Your task to perform on an android device: open device folders in google photos Image 0: 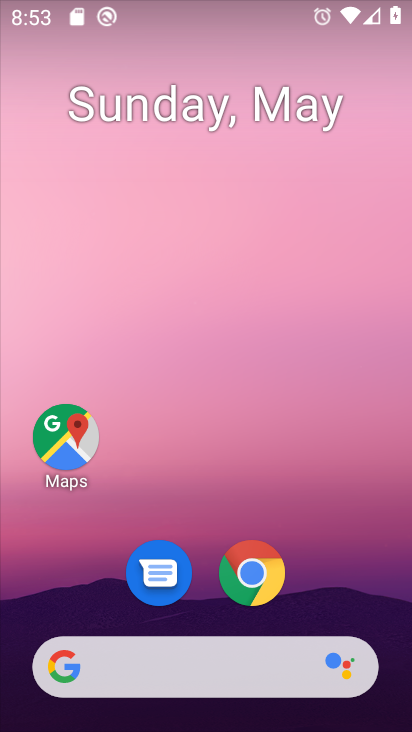
Step 0: drag from (256, 506) to (290, 7)
Your task to perform on an android device: open device folders in google photos Image 1: 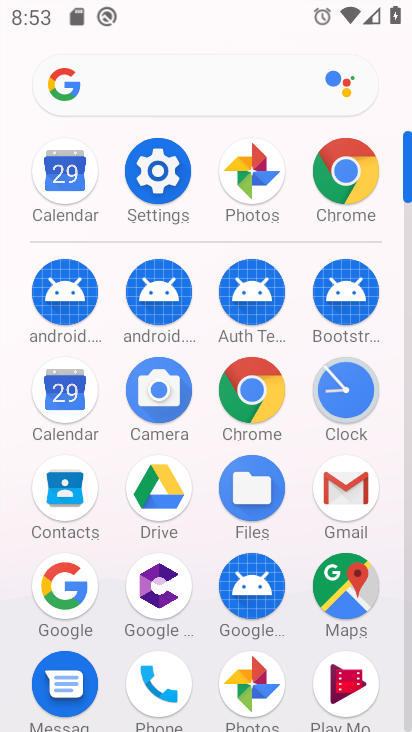
Step 1: click (253, 164)
Your task to perform on an android device: open device folders in google photos Image 2: 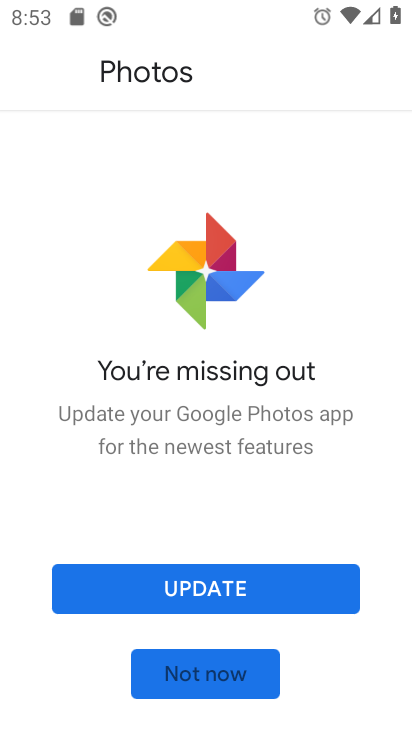
Step 2: click (205, 673)
Your task to perform on an android device: open device folders in google photos Image 3: 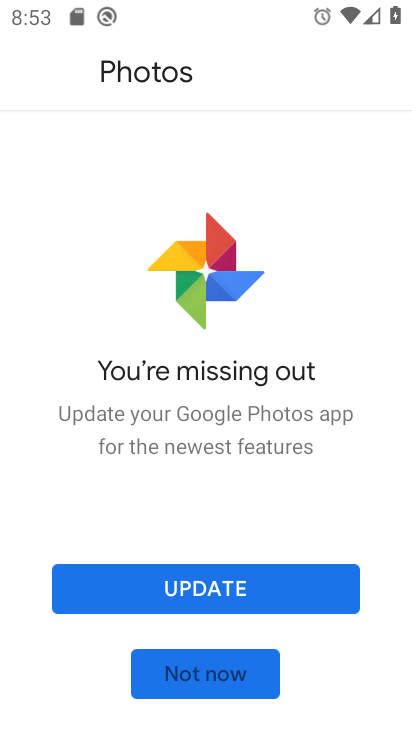
Step 3: click (205, 673)
Your task to perform on an android device: open device folders in google photos Image 4: 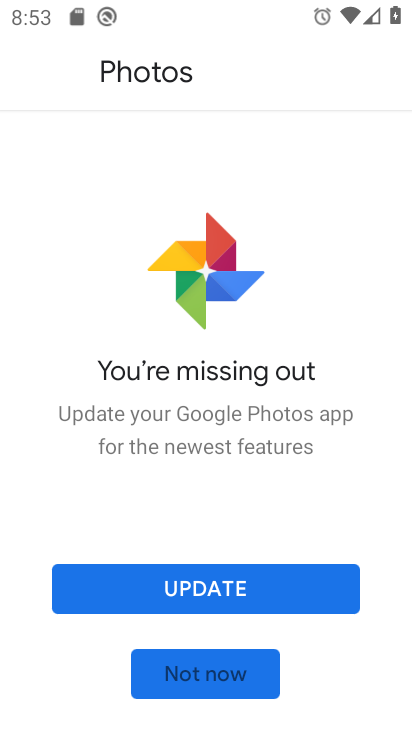
Step 4: click (268, 590)
Your task to perform on an android device: open device folders in google photos Image 5: 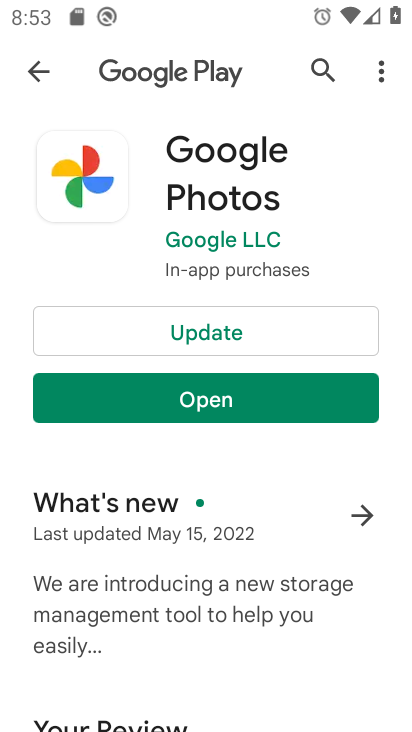
Step 5: click (292, 391)
Your task to perform on an android device: open device folders in google photos Image 6: 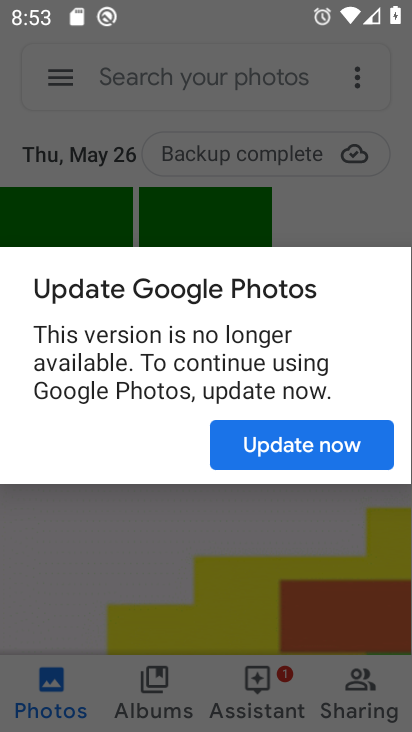
Step 6: click (274, 441)
Your task to perform on an android device: open device folders in google photos Image 7: 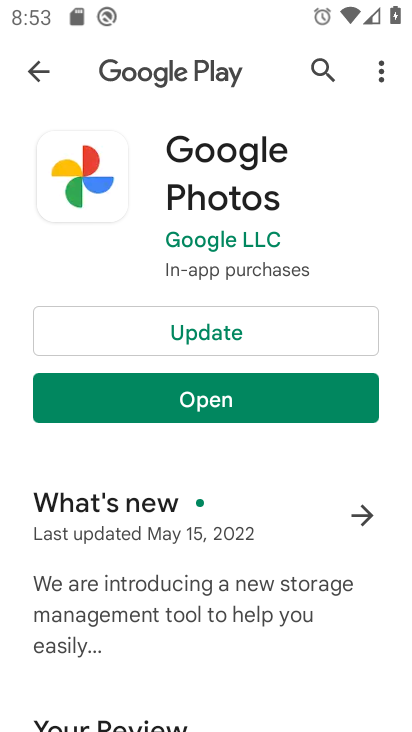
Step 7: click (251, 401)
Your task to perform on an android device: open device folders in google photos Image 8: 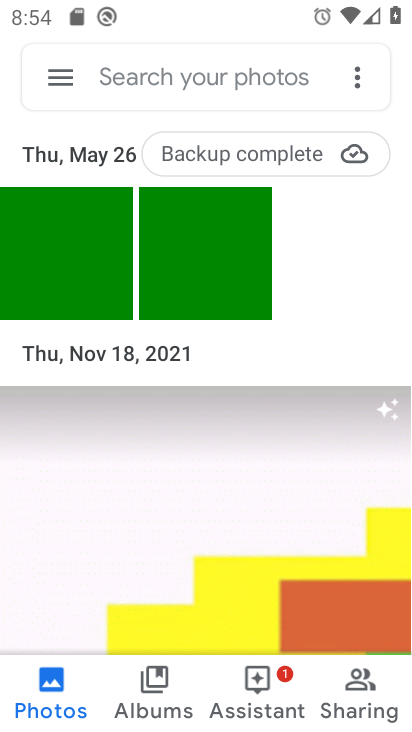
Step 8: click (65, 75)
Your task to perform on an android device: open device folders in google photos Image 9: 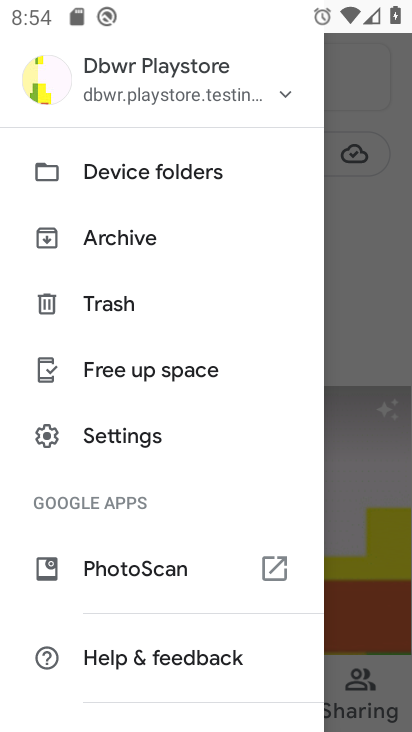
Step 9: click (125, 166)
Your task to perform on an android device: open device folders in google photos Image 10: 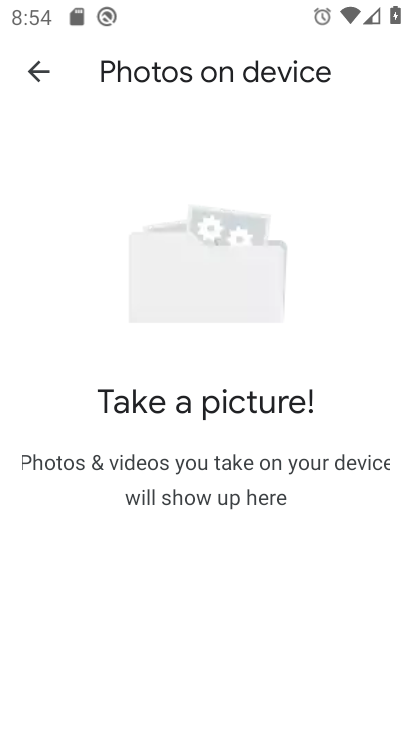
Step 10: task complete